Your task to perform on an android device: What's on my calendar today? Image 0: 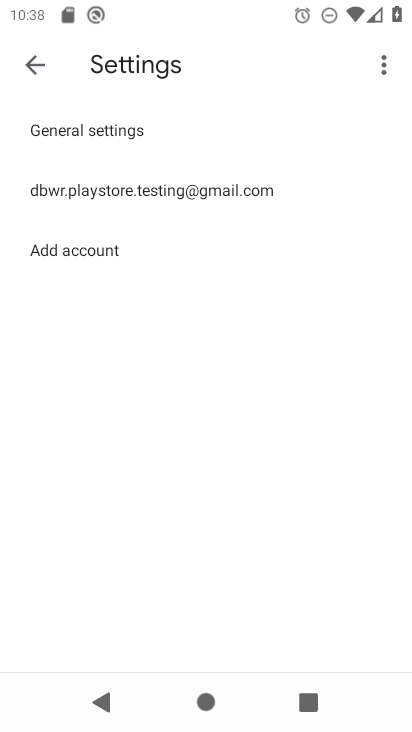
Step 0: press home button
Your task to perform on an android device: What's on my calendar today? Image 1: 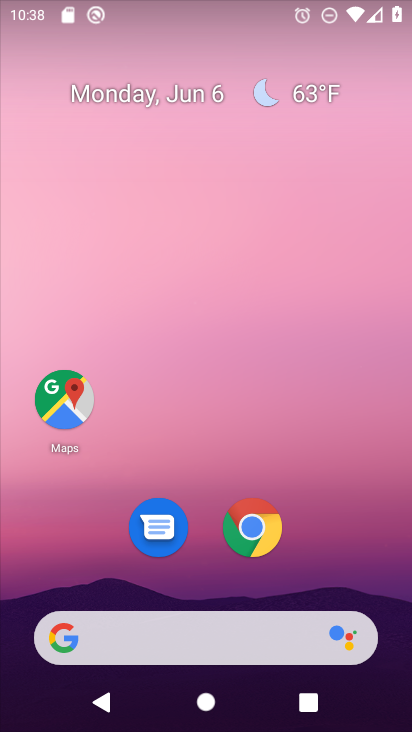
Step 1: drag from (357, 579) to (382, 91)
Your task to perform on an android device: What's on my calendar today? Image 2: 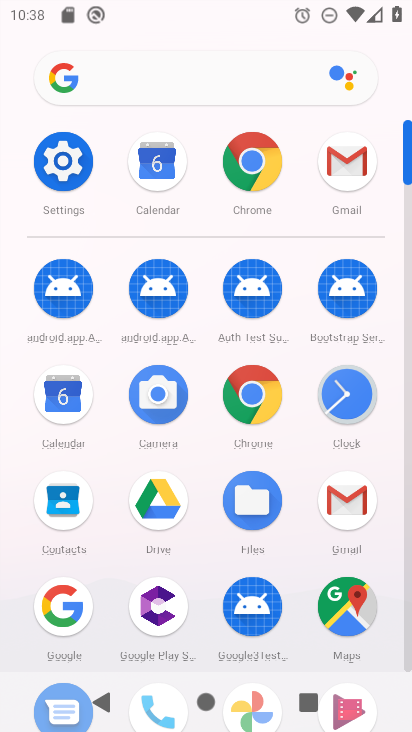
Step 2: click (77, 407)
Your task to perform on an android device: What's on my calendar today? Image 3: 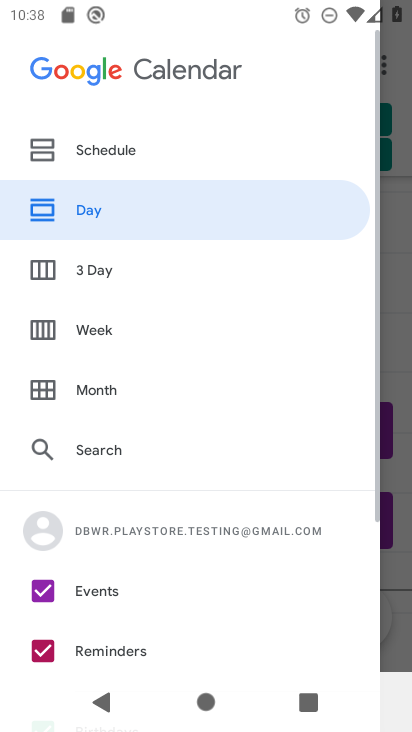
Step 3: drag from (260, 555) to (294, 337)
Your task to perform on an android device: What's on my calendar today? Image 4: 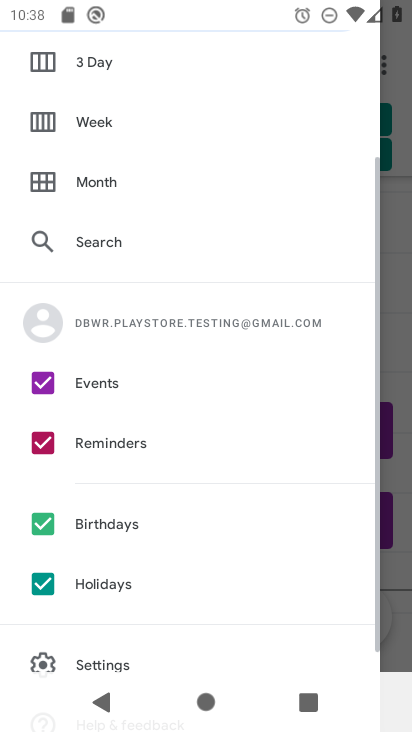
Step 4: drag from (288, 187) to (300, 445)
Your task to perform on an android device: What's on my calendar today? Image 5: 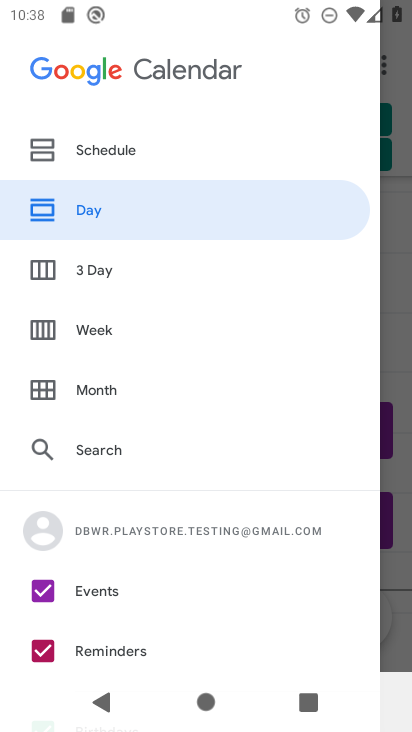
Step 5: click (126, 147)
Your task to perform on an android device: What's on my calendar today? Image 6: 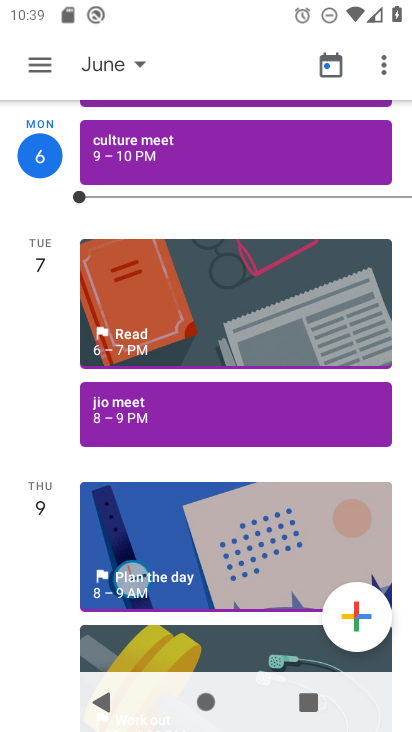
Step 6: task complete